Your task to perform on an android device: stop showing notifications on the lock screen Image 0: 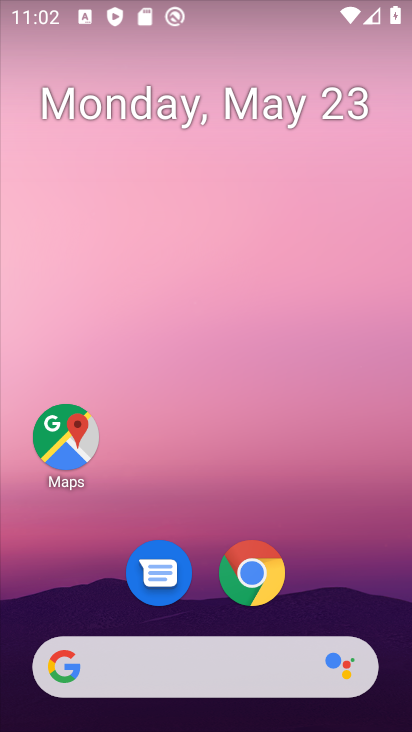
Step 0: drag from (244, 637) to (252, 186)
Your task to perform on an android device: stop showing notifications on the lock screen Image 1: 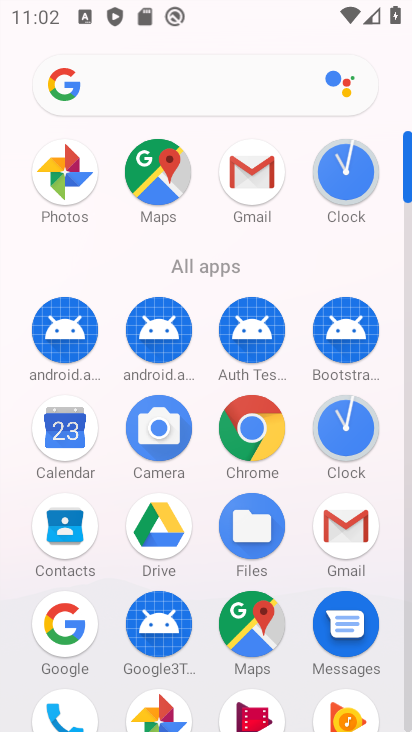
Step 1: drag from (213, 579) to (200, 262)
Your task to perform on an android device: stop showing notifications on the lock screen Image 2: 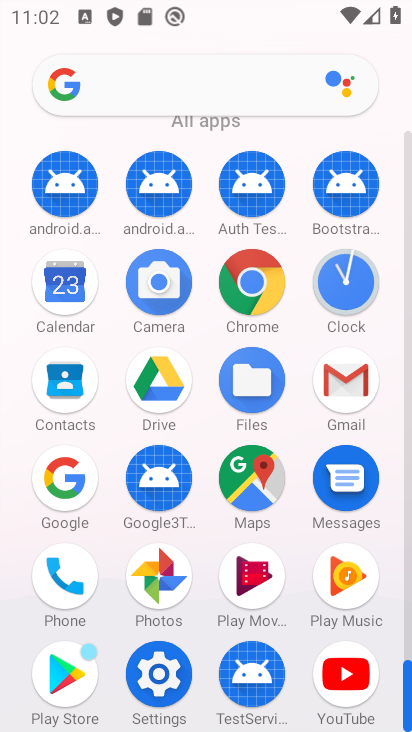
Step 2: click (158, 678)
Your task to perform on an android device: stop showing notifications on the lock screen Image 3: 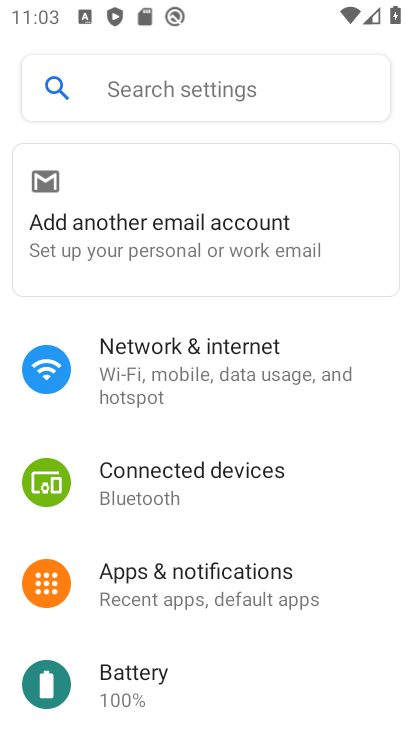
Step 3: drag from (168, 667) to (190, 311)
Your task to perform on an android device: stop showing notifications on the lock screen Image 4: 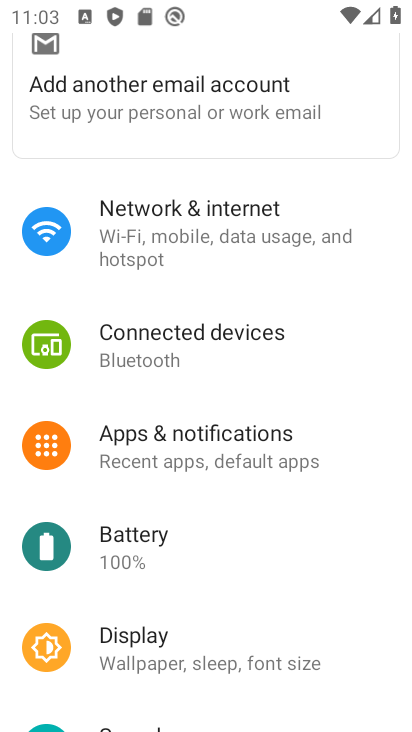
Step 4: drag from (150, 700) to (157, 78)
Your task to perform on an android device: stop showing notifications on the lock screen Image 5: 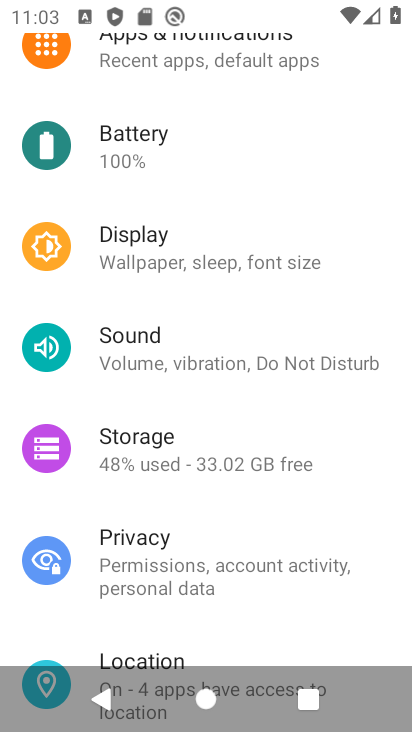
Step 5: click (136, 569)
Your task to perform on an android device: stop showing notifications on the lock screen Image 6: 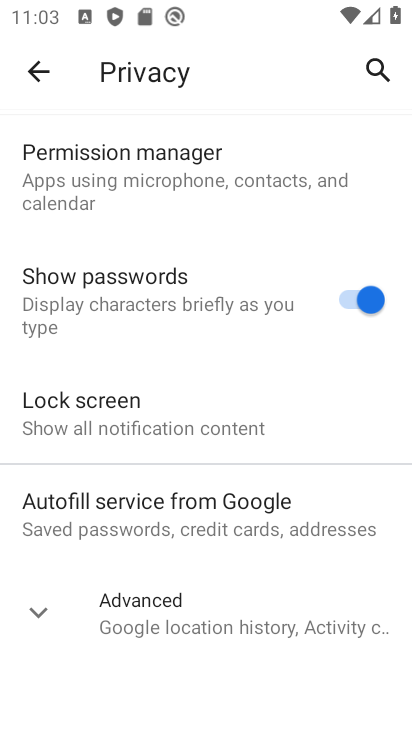
Step 6: click (155, 433)
Your task to perform on an android device: stop showing notifications on the lock screen Image 7: 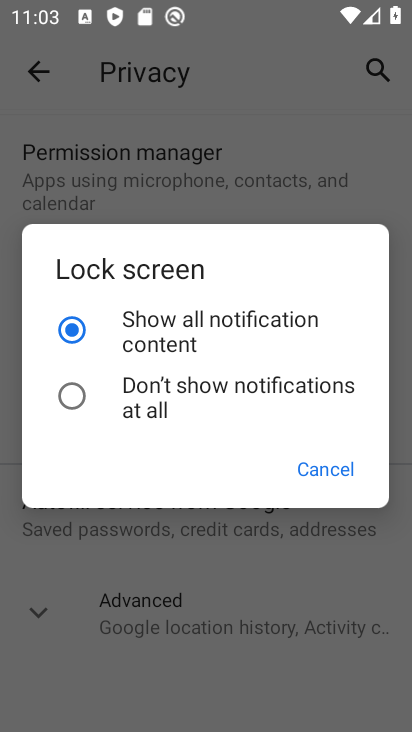
Step 7: click (164, 397)
Your task to perform on an android device: stop showing notifications on the lock screen Image 8: 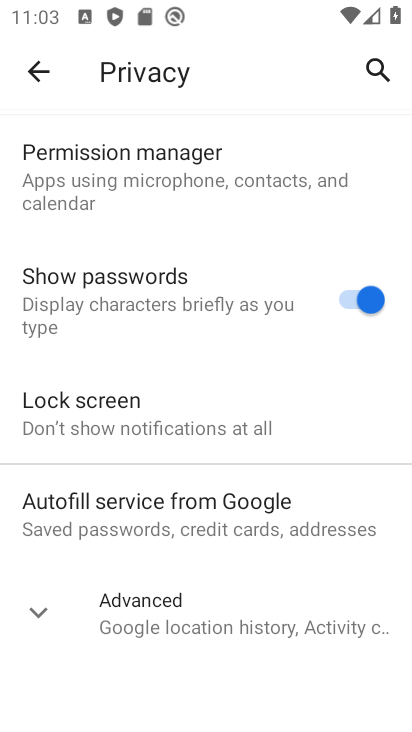
Step 8: task complete